Your task to perform on an android device: Open Wikipedia Image 0: 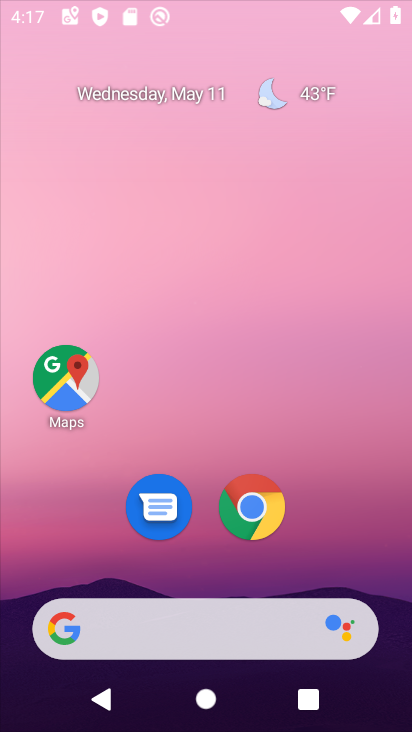
Step 0: click (272, 52)
Your task to perform on an android device: Open Wikipedia Image 1: 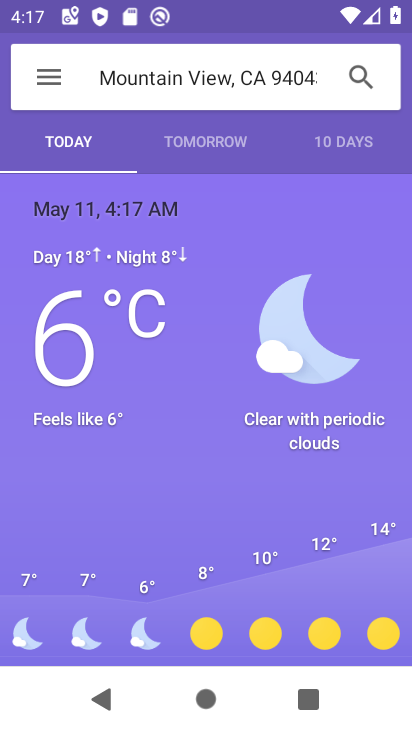
Step 1: press home button
Your task to perform on an android device: Open Wikipedia Image 2: 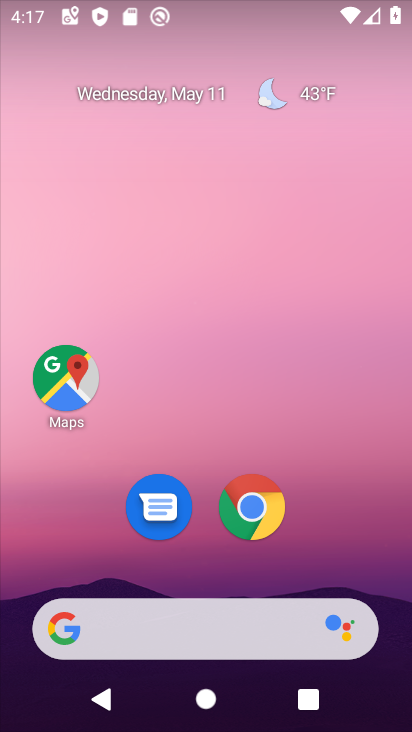
Step 2: click (258, 491)
Your task to perform on an android device: Open Wikipedia Image 3: 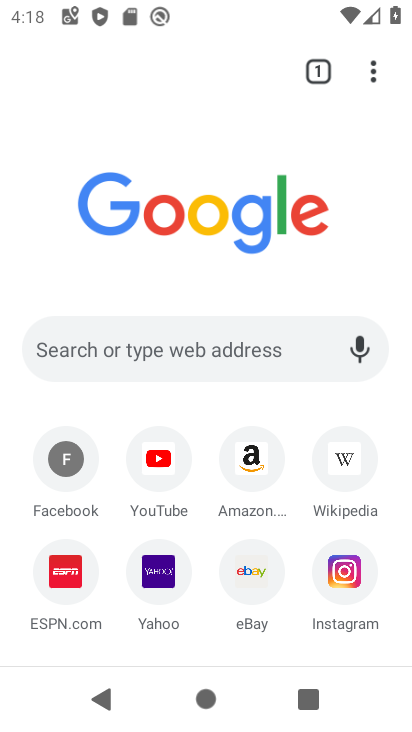
Step 3: click (355, 488)
Your task to perform on an android device: Open Wikipedia Image 4: 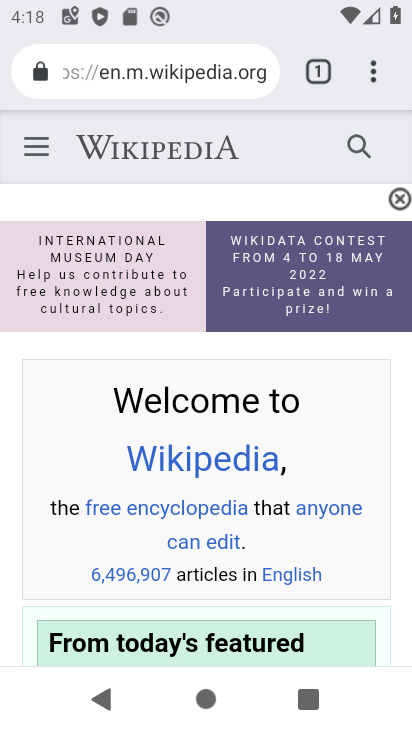
Step 4: task complete